Your task to perform on an android device: Go to Reddit.com Image 0: 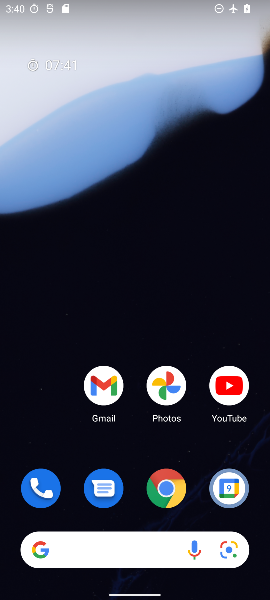
Step 0: drag from (54, 407) to (92, 6)
Your task to perform on an android device: Go to Reddit.com Image 1: 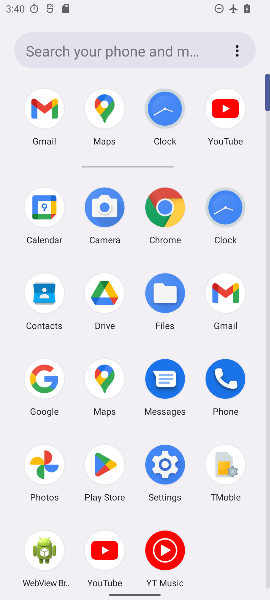
Step 1: click (172, 199)
Your task to perform on an android device: Go to Reddit.com Image 2: 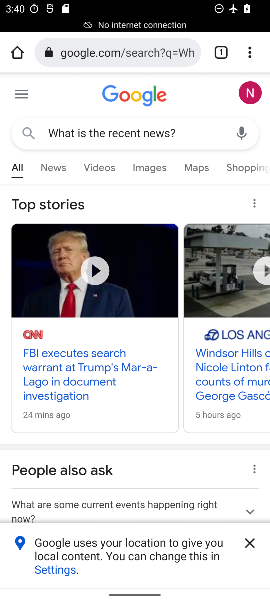
Step 2: click (87, 48)
Your task to perform on an android device: Go to Reddit.com Image 3: 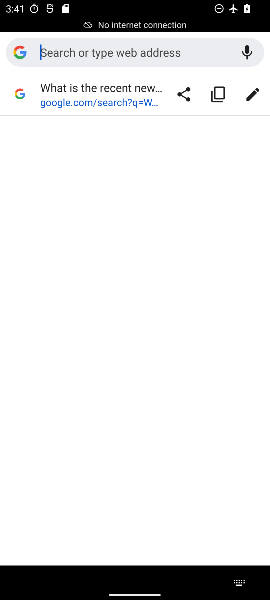
Step 3: type "Reddit.com"
Your task to perform on an android device: Go to Reddit.com Image 4: 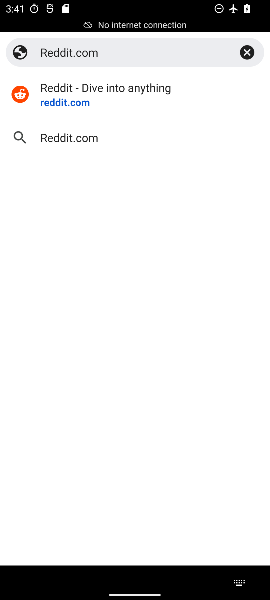
Step 4: click (118, 83)
Your task to perform on an android device: Go to Reddit.com Image 5: 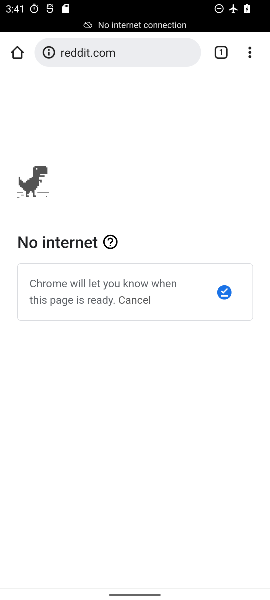
Step 5: task complete